Your task to perform on an android device: turn on airplane mode Image 0: 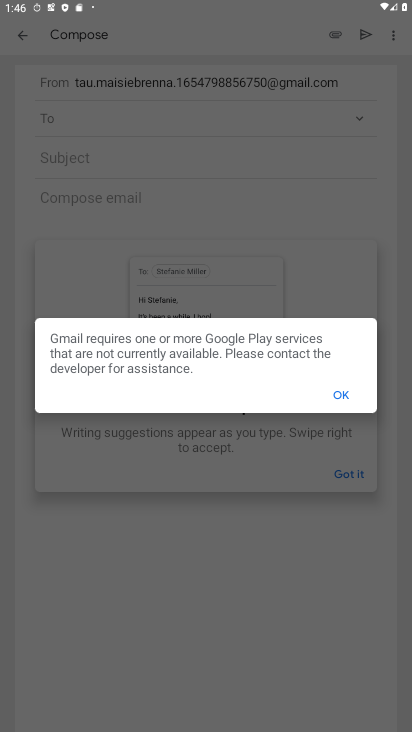
Step 0: press home button
Your task to perform on an android device: turn on airplane mode Image 1: 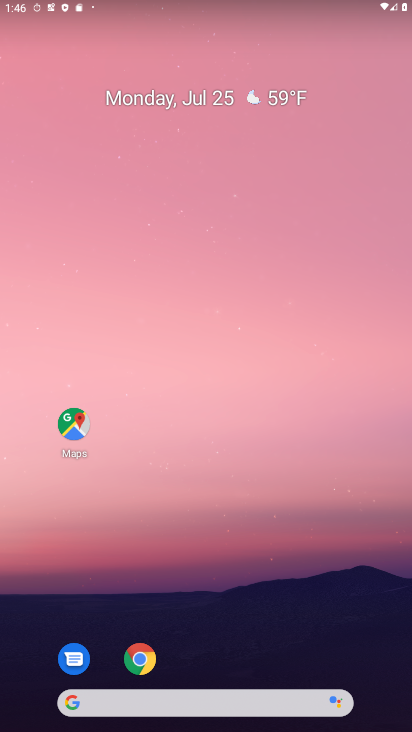
Step 1: drag from (308, 669) to (296, 5)
Your task to perform on an android device: turn on airplane mode Image 2: 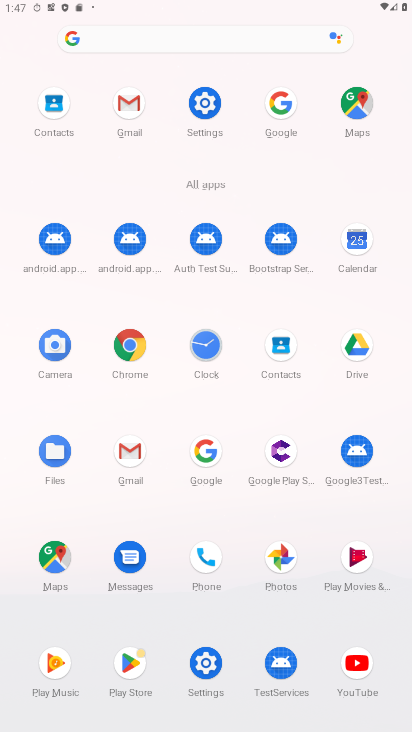
Step 2: click (214, 110)
Your task to perform on an android device: turn on airplane mode Image 3: 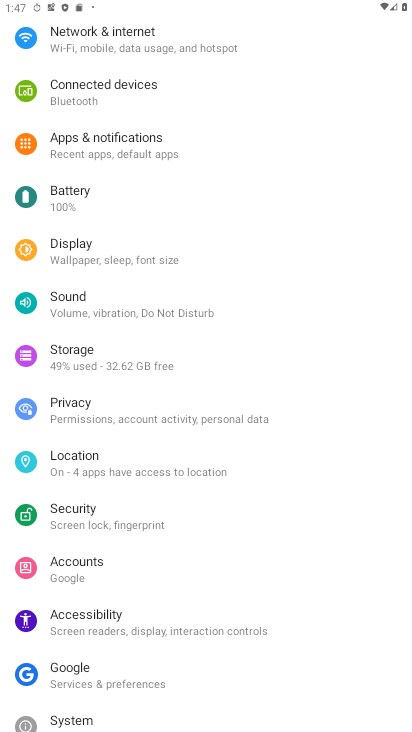
Step 3: click (154, 63)
Your task to perform on an android device: turn on airplane mode Image 4: 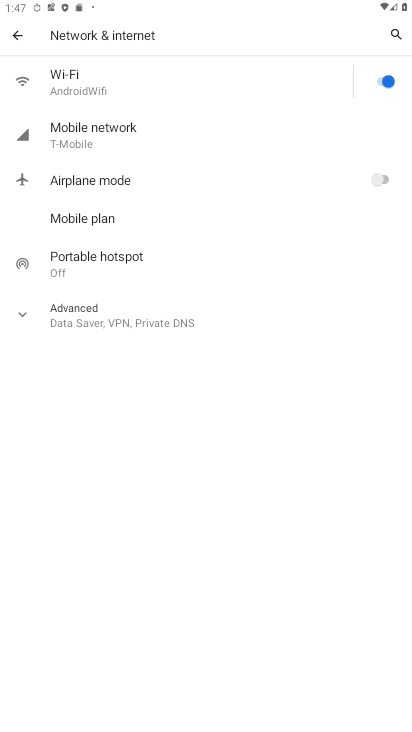
Step 4: click (390, 187)
Your task to perform on an android device: turn on airplane mode Image 5: 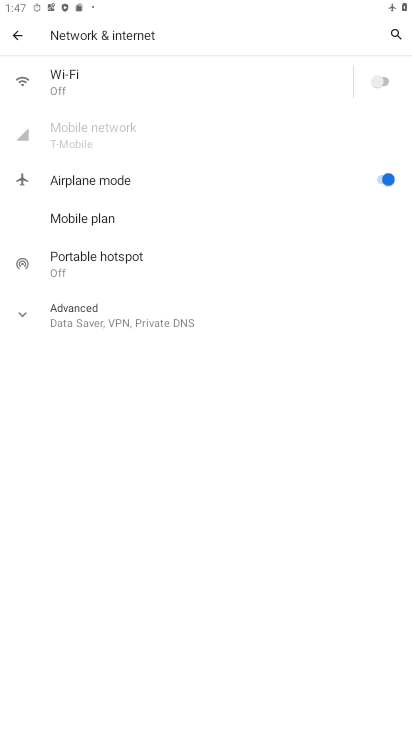
Step 5: task complete